Your task to perform on an android device: open app "TextNow: Call + Text Unlimited" Image 0: 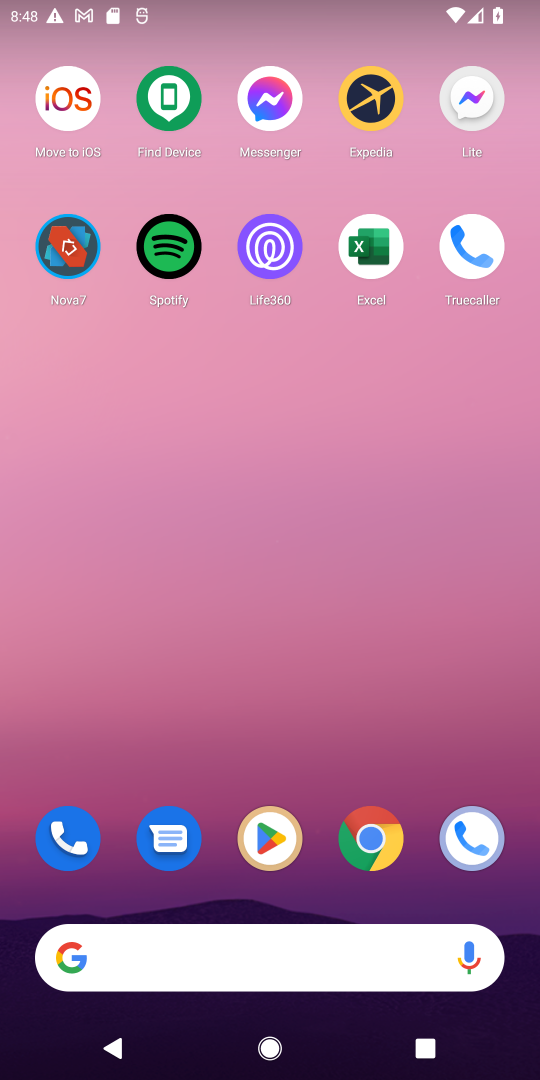
Step 0: press home button
Your task to perform on an android device: open app "TextNow: Call + Text Unlimited" Image 1: 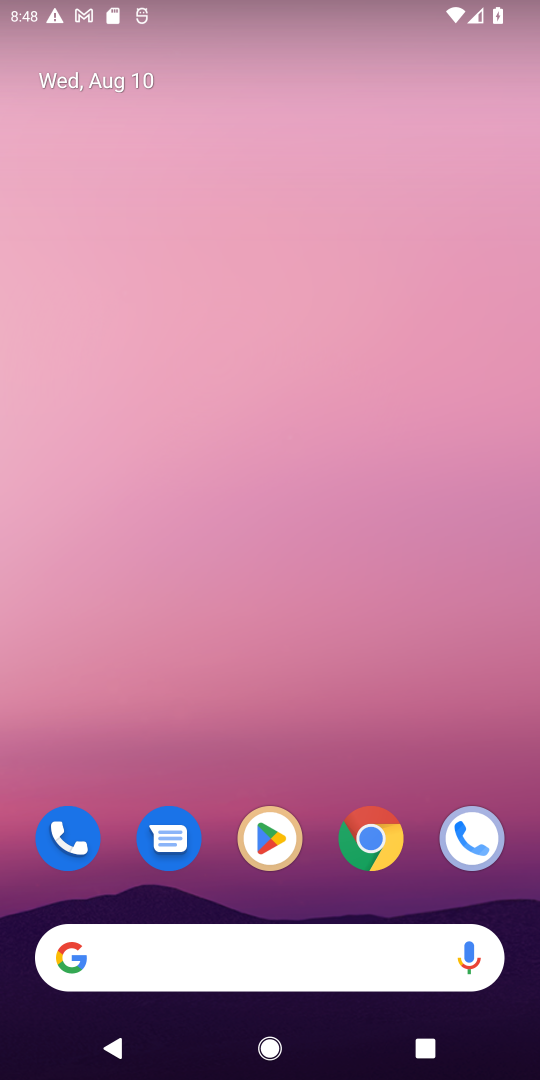
Step 1: click (269, 837)
Your task to perform on an android device: open app "TextNow: Call + Text Unlimited" Image 2: 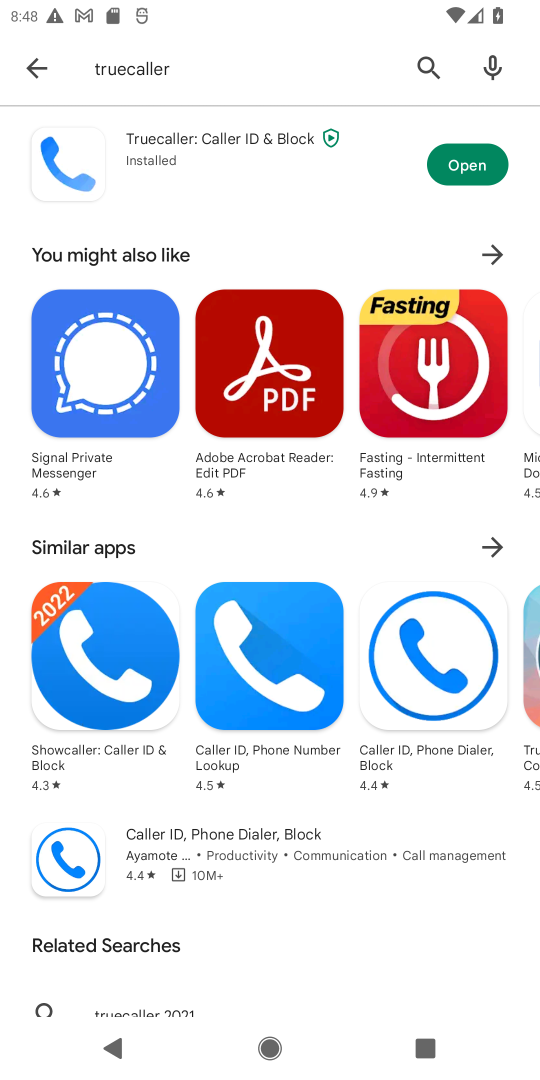
Step 2: click (426, 66)
Your task to perform on an android device: open app "TextNow: Call + Text Unlimited" Image 3: 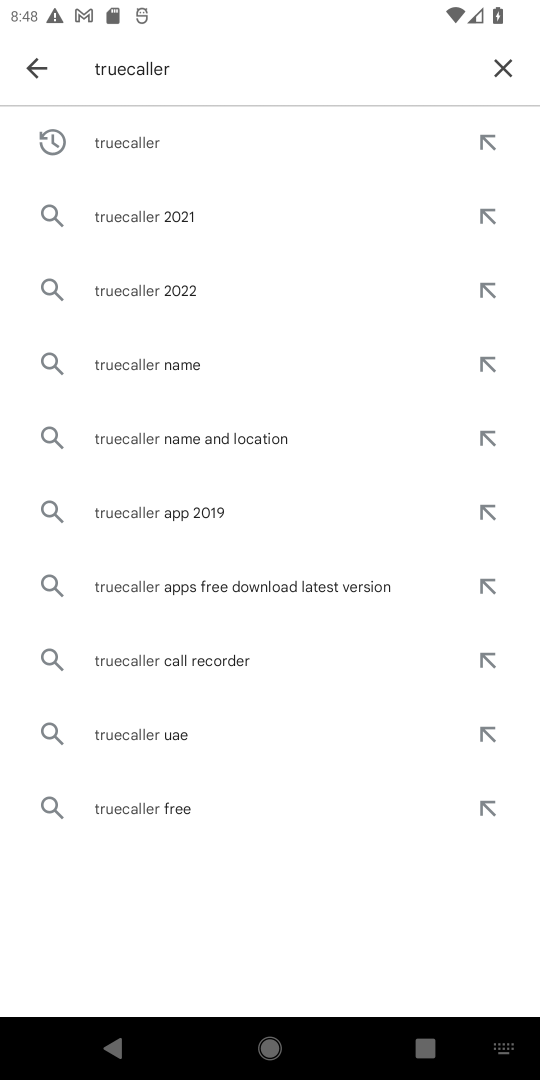
Step 3: click (494, 67)
Your task to perform on an android device: open app "TextNow: Call + Text Unlimited" Image 4: 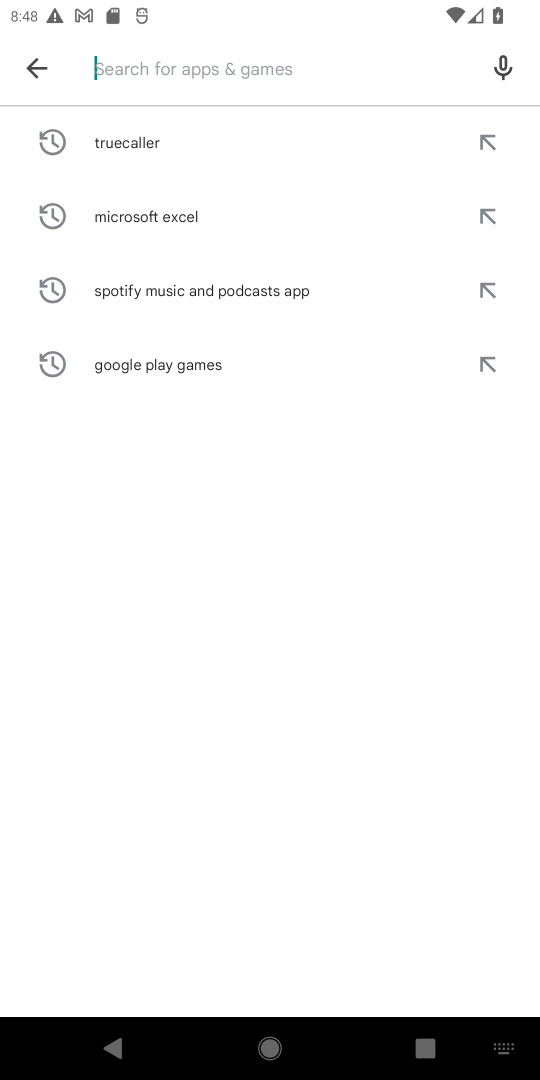
Step 4: type "TextNow: Call + Text Unlimited"
Your task to perform on an android device: open app "TextNow: Call + Text Unlimited" Image 5: 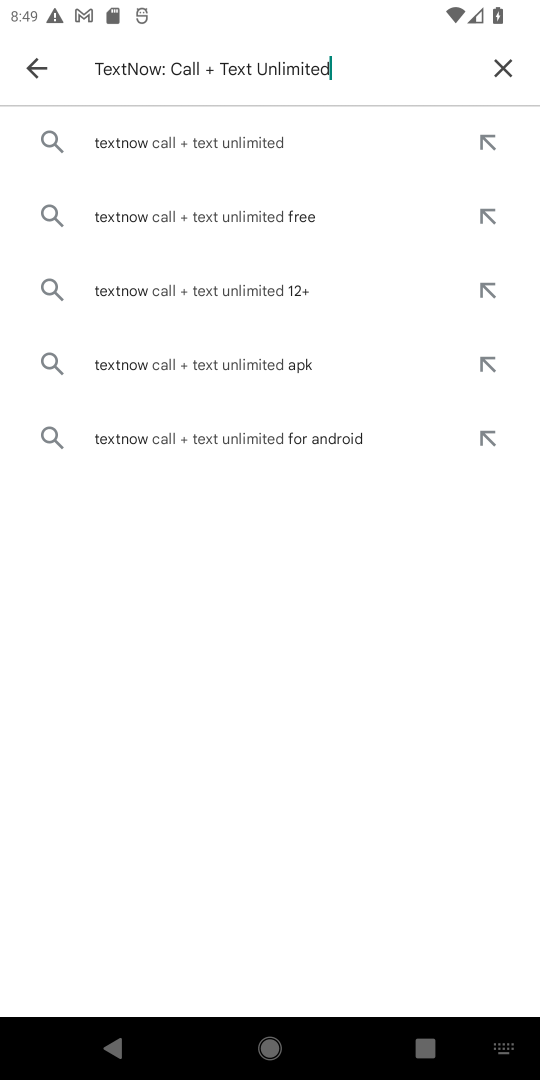
Step 5: click (298, 142)
Your task to perform on an android device: open app "TextNow: Call + Text Unlimited" Image 6: 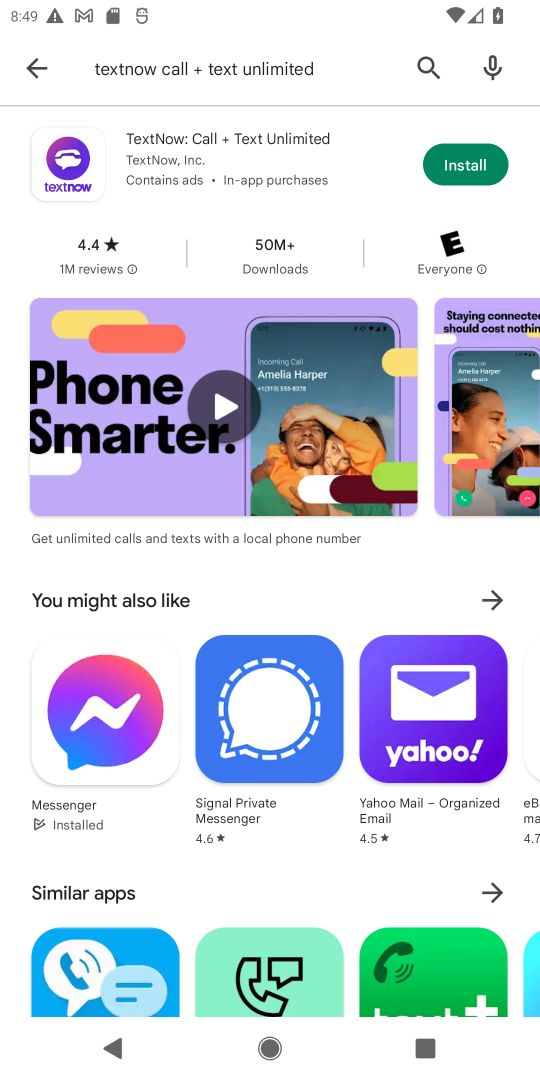
Step 6: task complete